Your task to perform on an android device: change the clock display to analog Image 0: 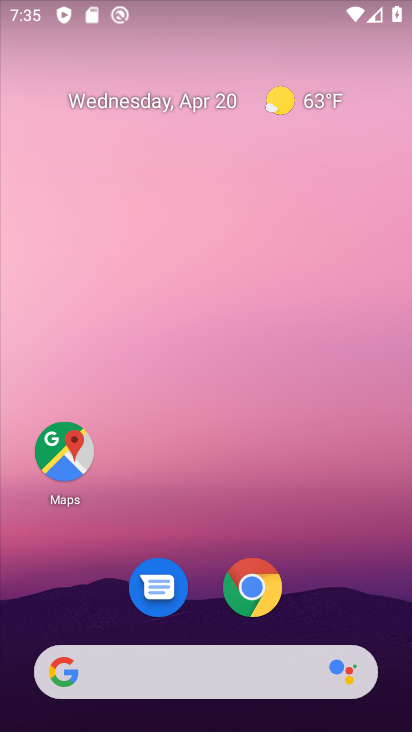
Step 0: drag from (208, 597) to (263, 150)
Your task to perform on an android device: change the clock display to analog Image 1: 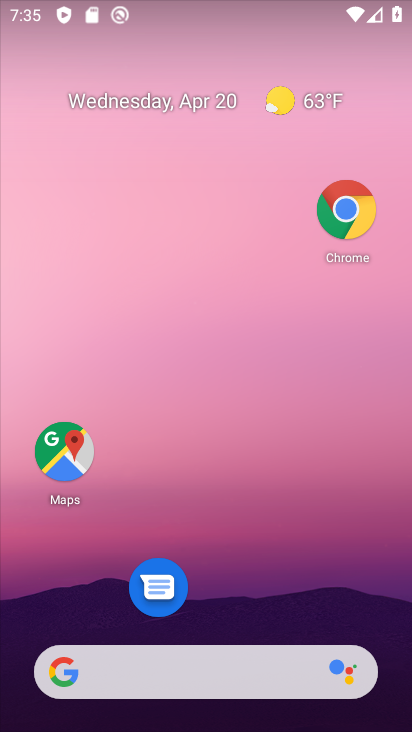
Step 1: drag from (243, 621) to (290, 91)
Your task to perform on an android device: change the clock display to analog Image 2: 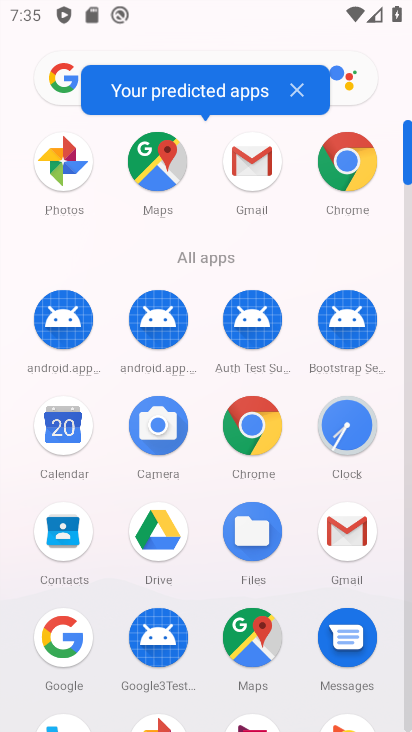
Step 2: click (351, 425)
Your task to perform on an android device: change the clock display to analog Image 3: 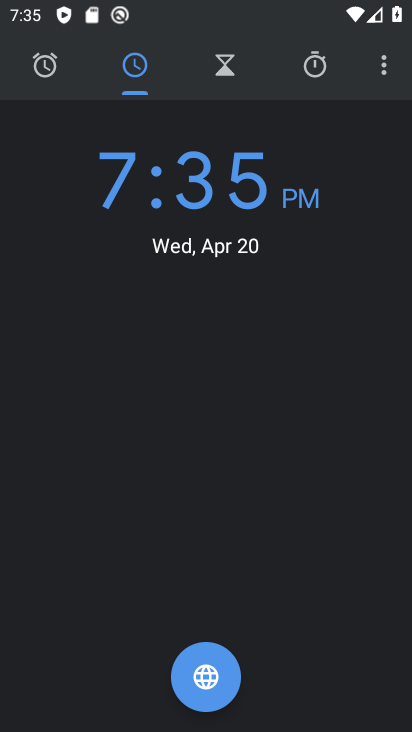
Step 3: click (385, 72)
Your task to perform on an android device: change the clock display to analog Image 4: 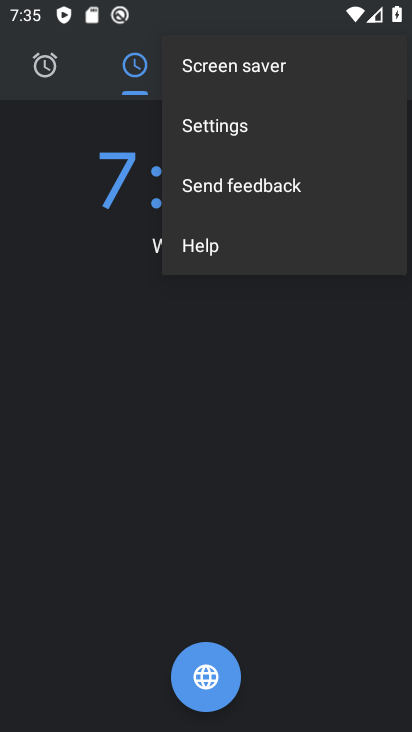
Step 4: click (249, 123)
Your task to perform on an android device: change the clock display to analog Image 5: 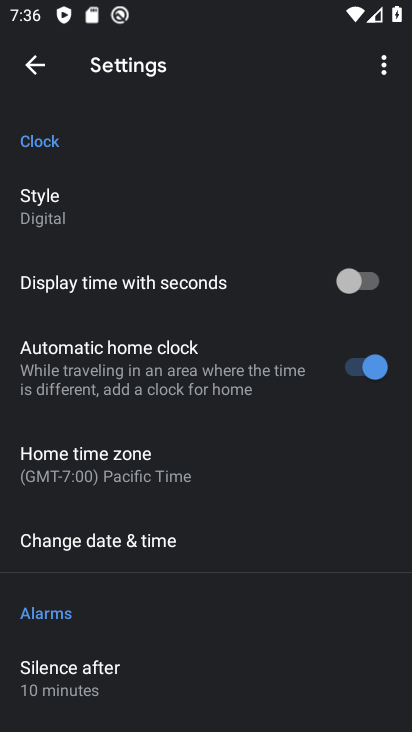
Step 5: click (223, 226)
Your task to perform on an android device: change the clock display to analog Image 6: 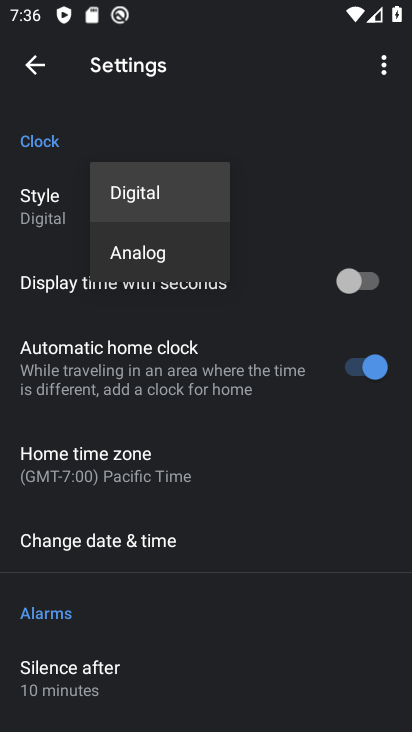
Step 6: click (205, 241)
Your task to perform on an android device: change the clock display to analog Image 7: 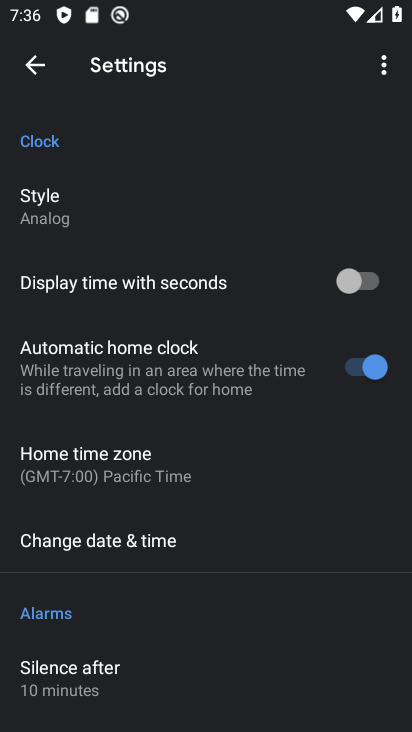
Step 7: task complete